Your task to perform on an android device: Open Youtube and go to "Your channel" Image 0: 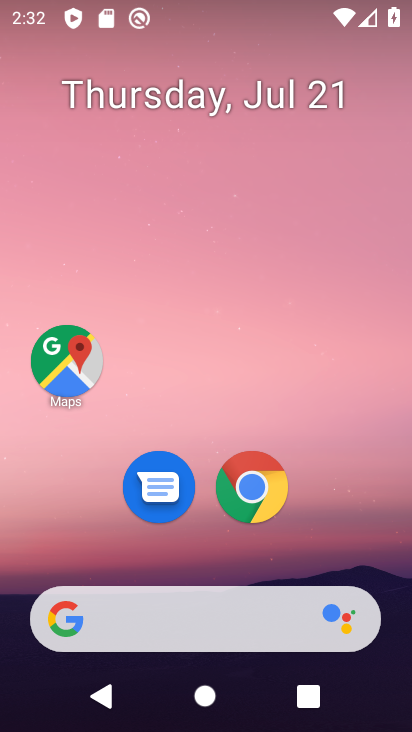
Step 0: drag from (163, 567) to (232, 4)
Your task to perform on an android device: Open Youtube and go to "Your channel" Image 1: 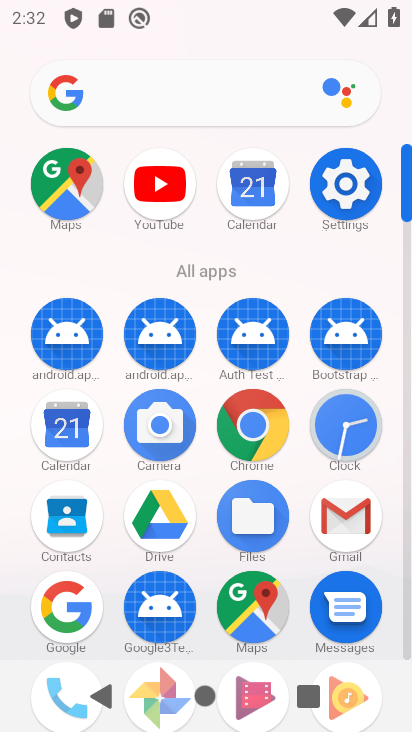
Step 1: click (159, 193)
Your task to perform on an android device: Open Youtube and go to "Your channel" Image 2: 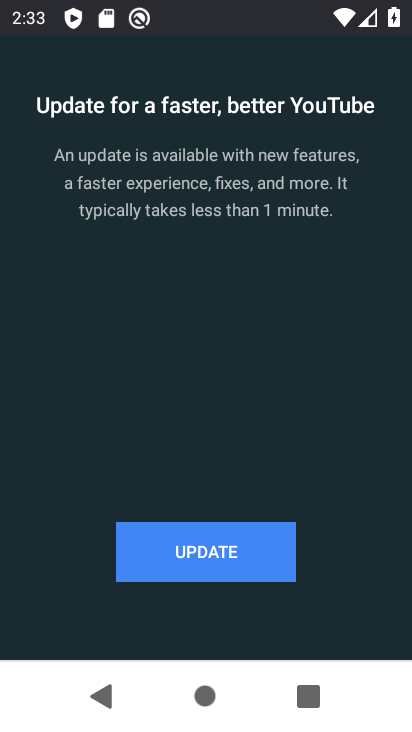
Step 2: click (230, 563)
Your task to perform on an android device: Open Youtube and go to "Your channel" Image 3: 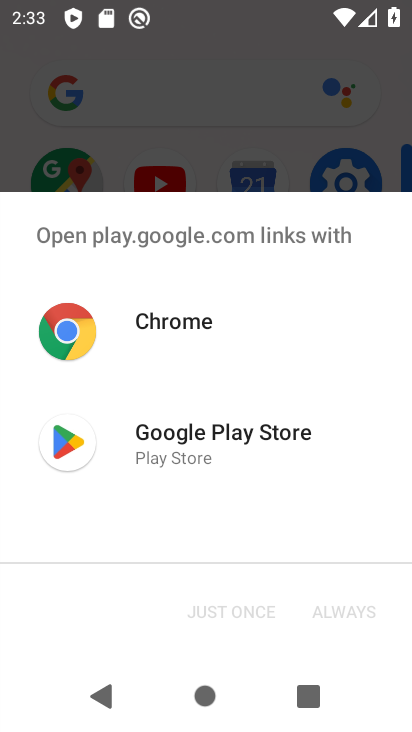
Step 3: click (195, 473)
Your task to perform on an android device: Open Youtube and go to "Your channel" Image 4: 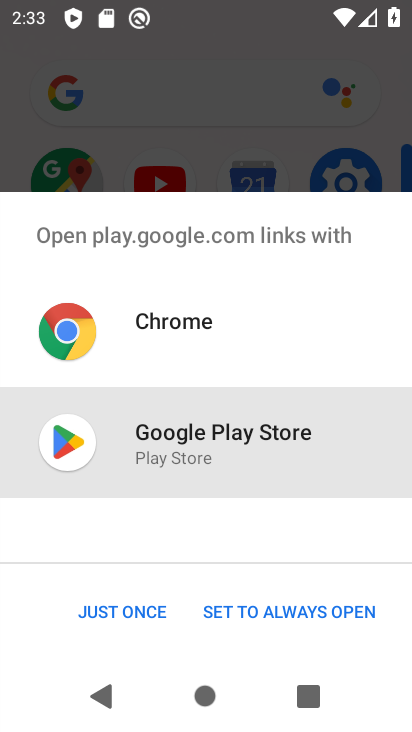
Step 4: click (115, 635)
Your task to perform on an android device: Open Youtube and go to "Your channel" Image 5: 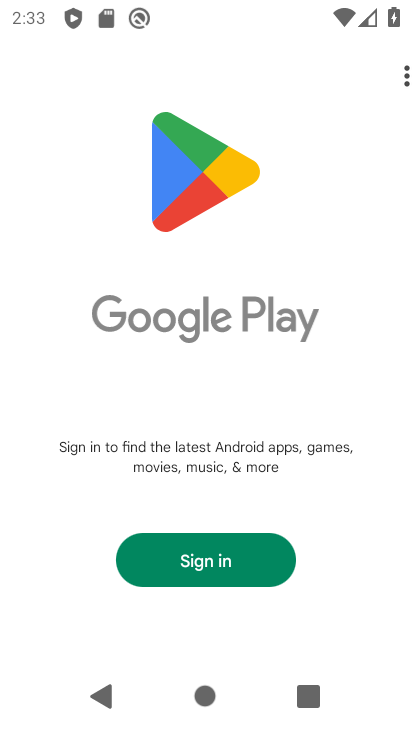
Step 5: task complete